Your task to perform on an android device: Open Google Chrome and open the bookmarks view Image 0: 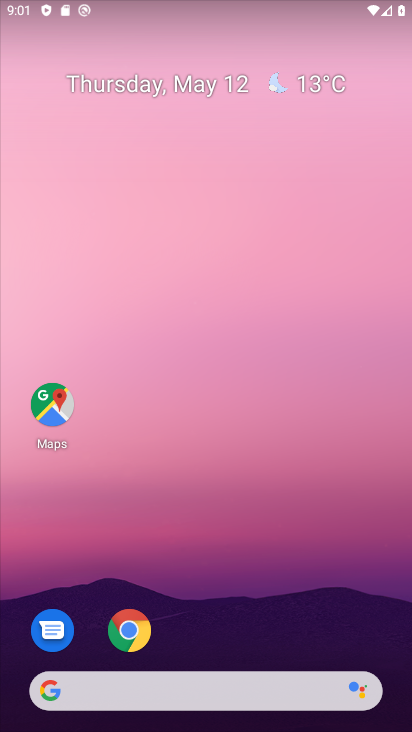
Step 0: drag from (181, 692) to (183, 213)
Your task to perform on an android device: Open Google Chrome and open the bookmarks view Image 1: 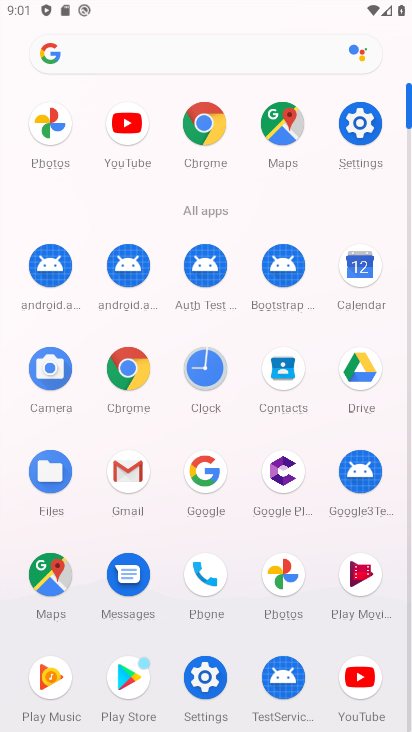
Step 1: click (211, 117)
Your task to perform on an android device: Open Google Chrome and open the bookmarks view Image 2: 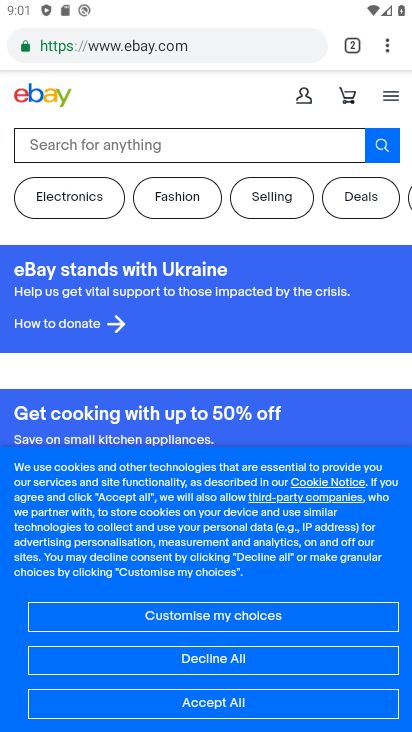
Step 2: drag from (386, 49) to (238, 231)
Your task to perform on an android device: Open Google Chrome and open the bookmarks view Image 3: 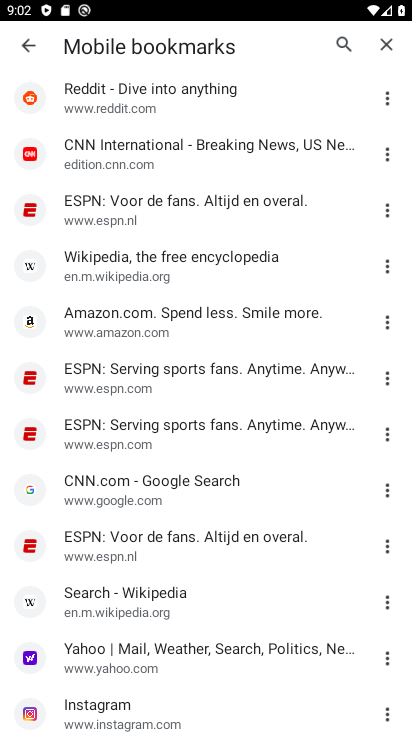
Step 3: click (245, 157)
Your task to perform on an android device: Open Google Chrome and open the bookmarks view Image 4: 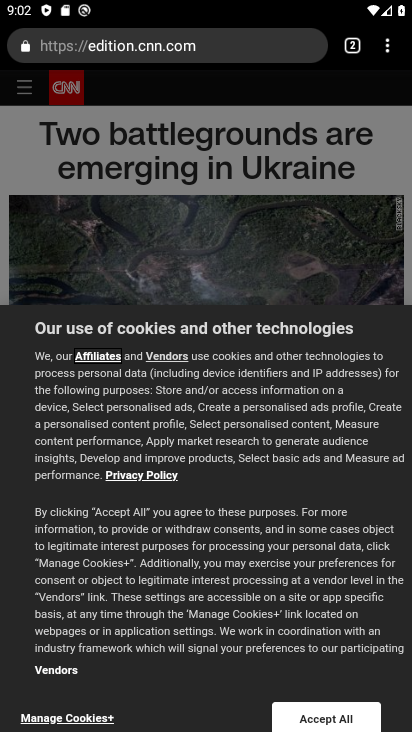
Step 4: task complete